Your task to perform on an android device: add a label to a message in the gmail app Image 0: 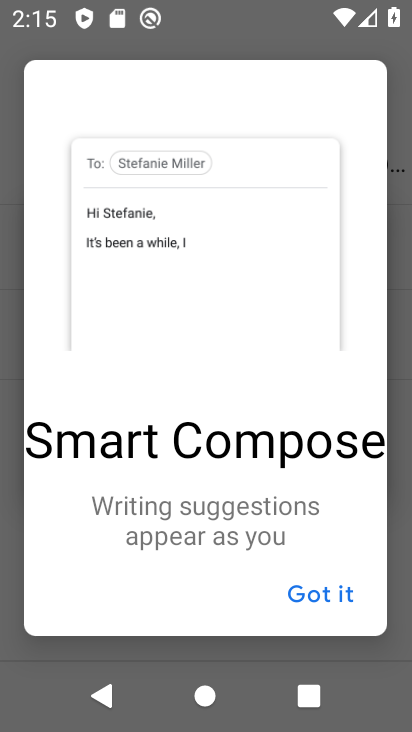
Step 0: press back button
Your task to perform on an android device: add a label to a message in the gmail app Image 1: 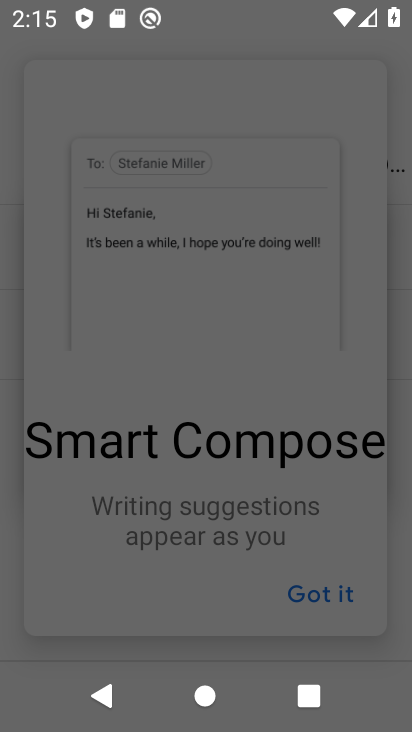
Step 1: press home button
Your task to perform on an android device: add a label to a message in the gmail app Image 2: 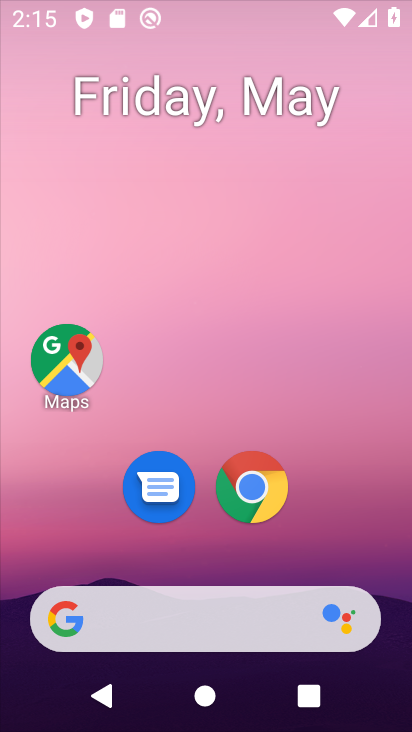
Step 2: drag from (215, 567) to (240, 3)
Your task to perform on an android device: add a label to a message in the gmail app Image 3: 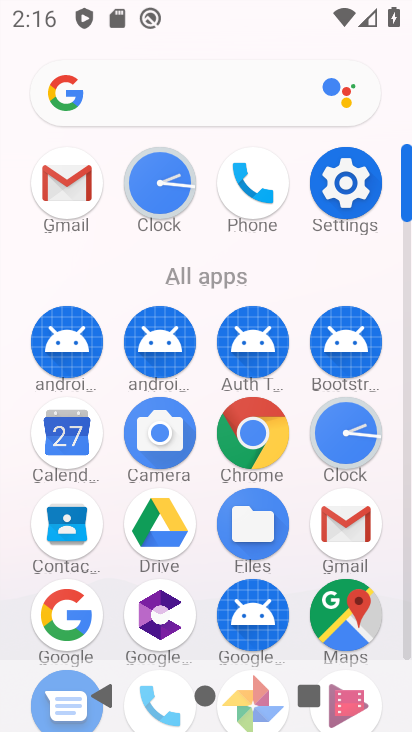
Step 3: click (66, 171)
Your task to perform on an android device: add a label to a message in the gmail app Image 4: 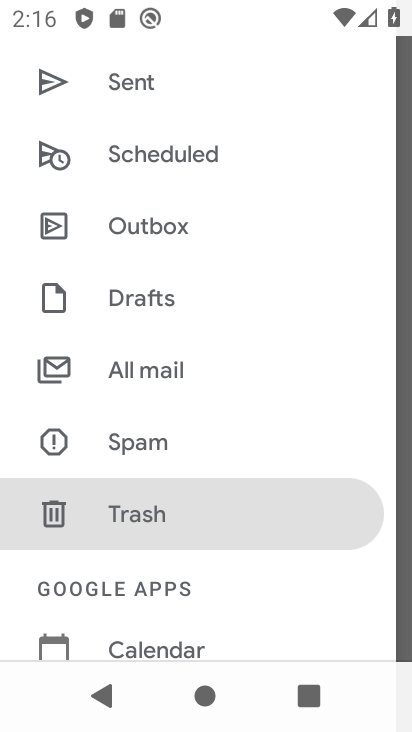
Step 4: click (134, 361)
Your task to perform on an android device: add a label to a message in the gmail app Image 5: 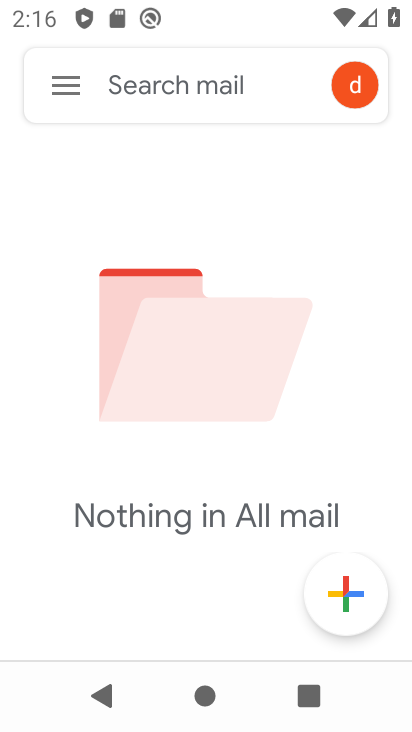
Step 5: task complete